Your task to perform on an android device: add a contact in the contacts app Image 0: 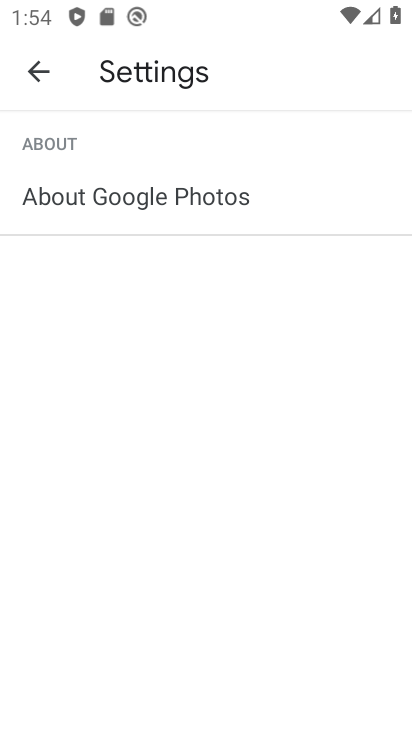
Step 0: press home button
Your task to perform on an android device: add a contact in the contacts app Image 1: 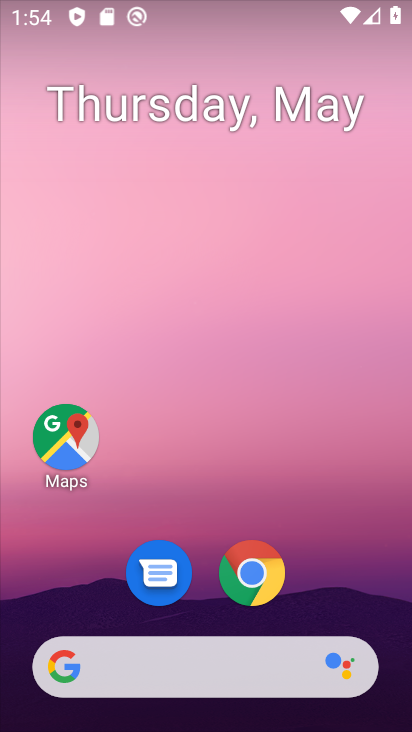
Step 1: drag from (352, 581) to (291, 221)
Your task to perform on an android device: add a contact in the contacts app Image 2: 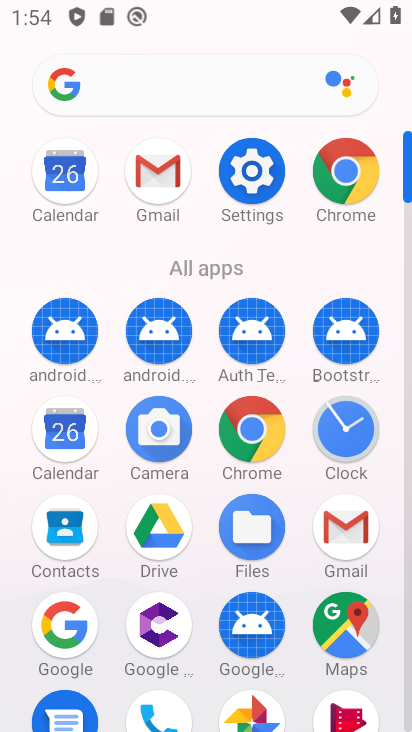
Step 2: click (79, 534)
Your task to perform on an android device: add a contact in the contacts app Image 3: 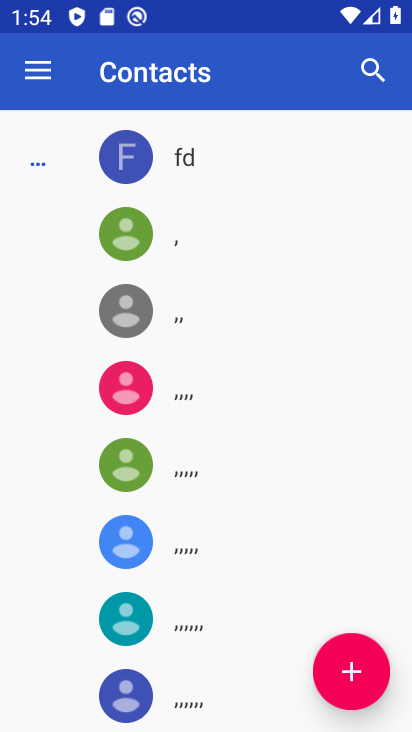
Step 3: click (362, 660)
Your task to perform on an android device: add a contact in the contacts app Image 4: 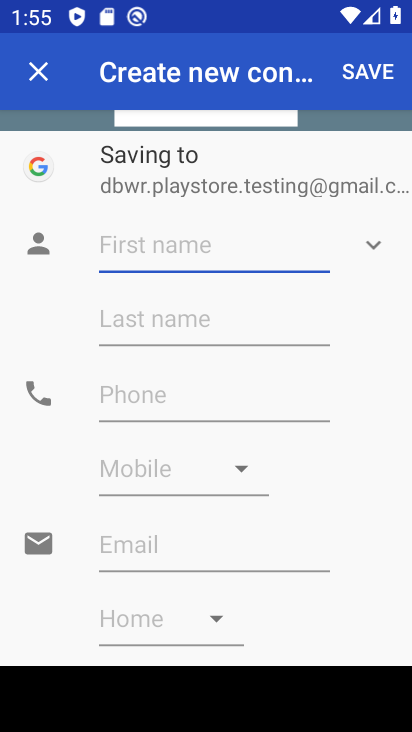
Step 4: click (225, 250)
Your task to perform on an android device: add a contact in the contacts app Image 5: 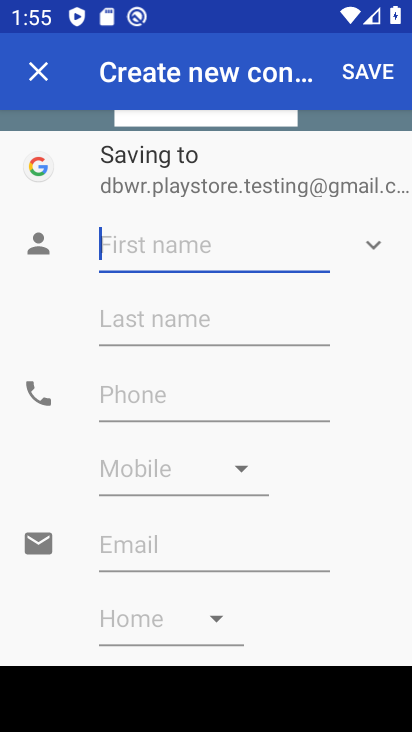
Step 5: type "nknjkbkj"
Your task to perform on an android device: add a contact in the contacts app Image 6: 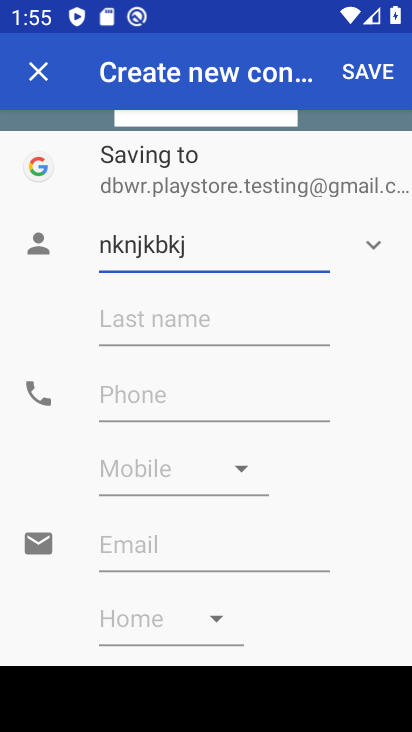
Step 6: click (215, 400)
Your task to perform on an android device: add a contact in the contacts app Image 7: 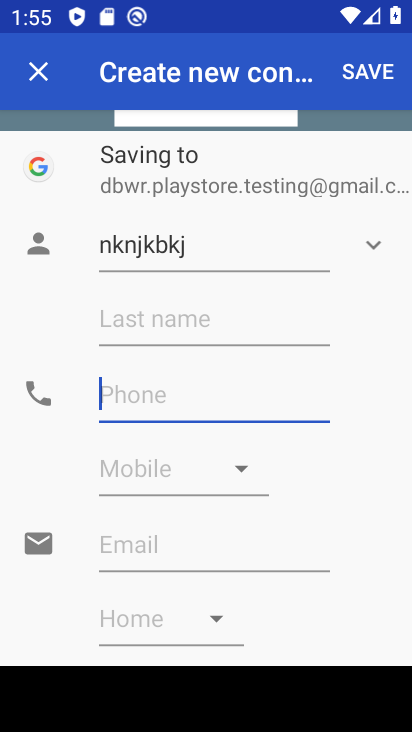
Step 7: type "7777787"
Your task to perform on an android device: add a contact in the contacts app Image 8: 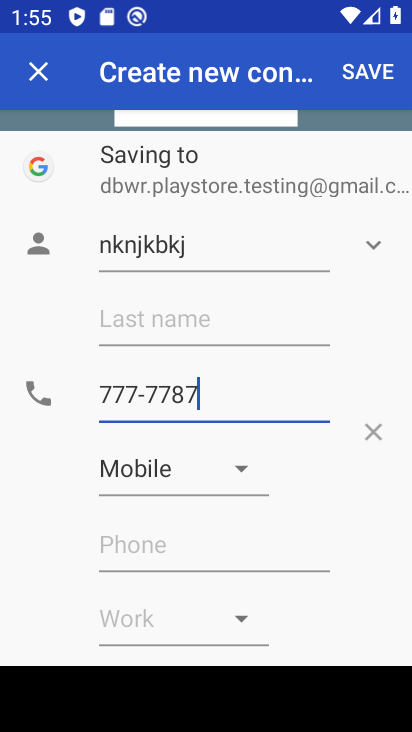
Step 8: click (379, 67)
Your task to perform on an android device: add a contact in the contacts app Image 9: 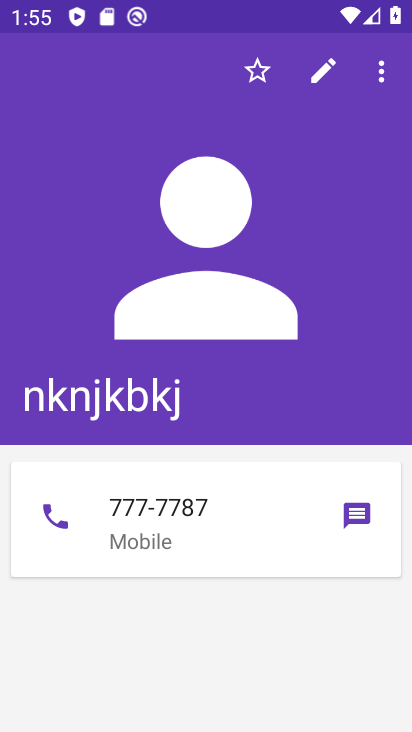
Step 9: task complete